Your task to perform on an android device: set the timer Image 0: 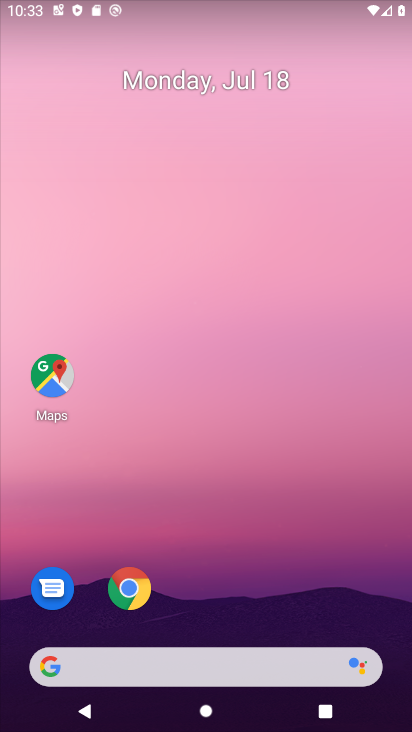
Step 0: drag from (236, 720) to (263, 200)
Your task to perform on an android device: set the timer Image 1: 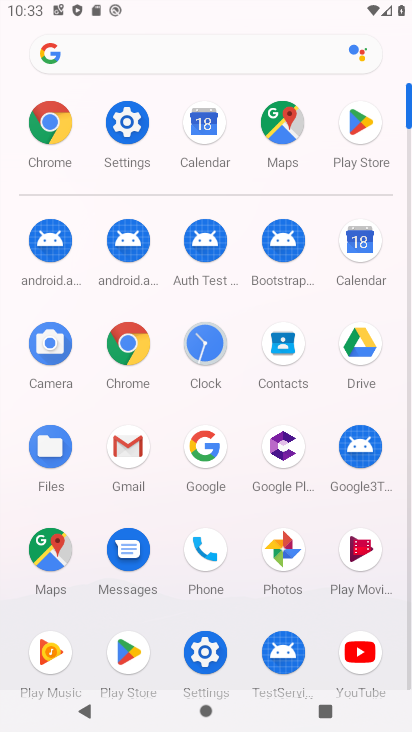
Step 1: click (203, 346)
Your task to perform on an android device: set the timer Image 2: 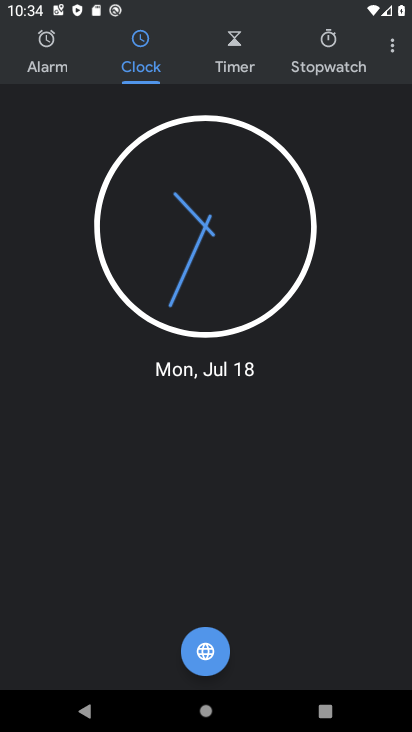
Step 2: click (245, 49)
Your task to perform on an android device: set the timer Image 3: 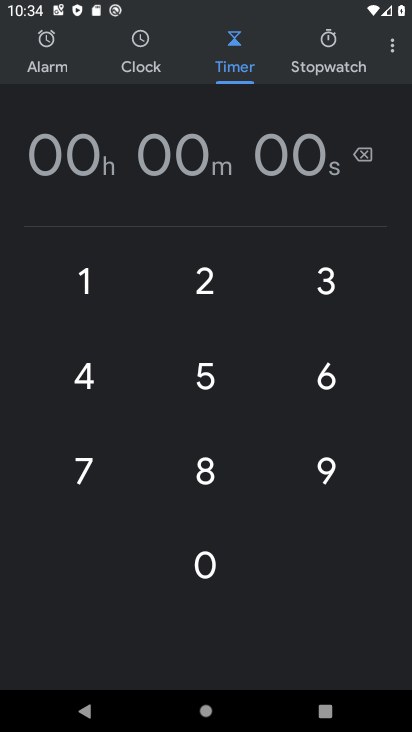
Step 3: click (207, 469)
Your task to perform on an android device: set the timer Image 4: 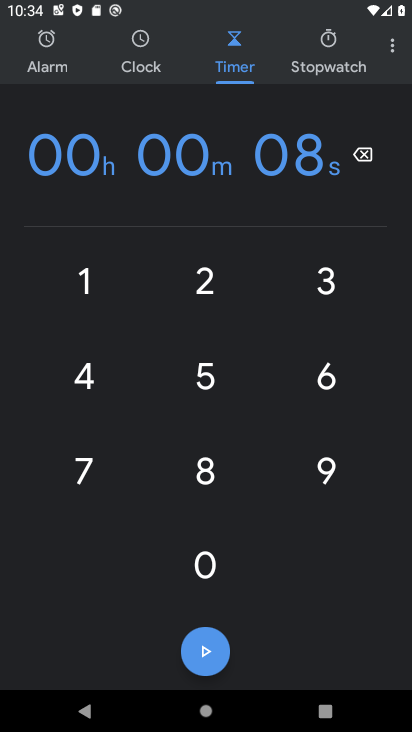
Step 4: click (201, 291)
Your task to perform on an android device: set the timer Image 5: 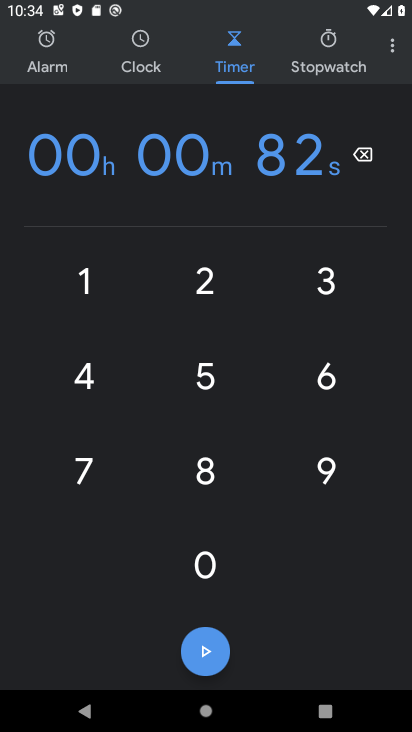
Step 5: click (85, 375)
Your task to perform on an android device: set the timer Image 6: 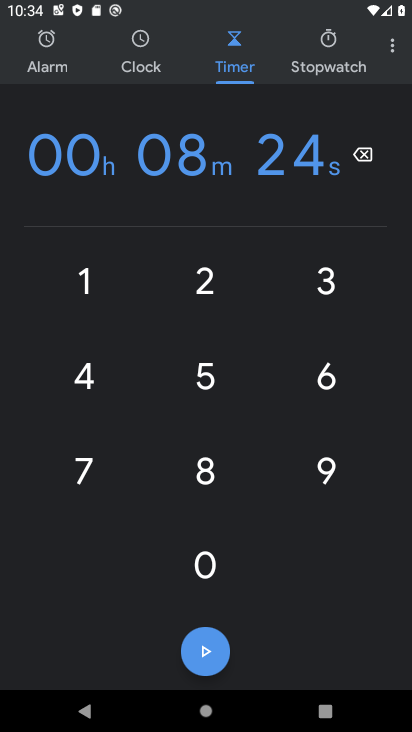
Step 6: click (341, 375)
Your task to perform on an android device: set the timer Image 7: 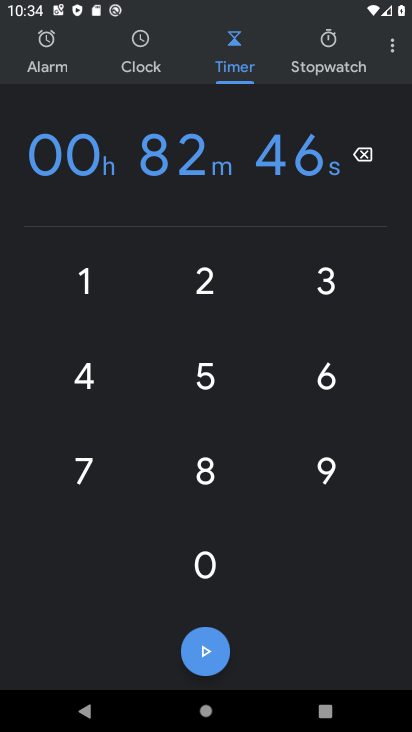
Step 7: click (214, 660)
Your task to perform on an android device: set the timer Image 8: 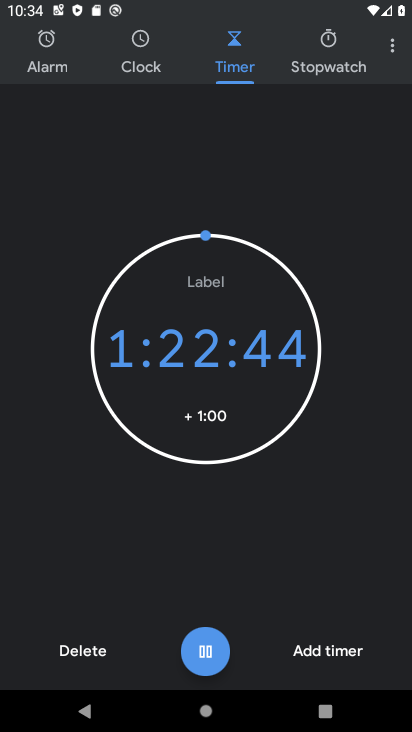
Step 8: task complete